Your task to perform on an android device: check android version Image 0: 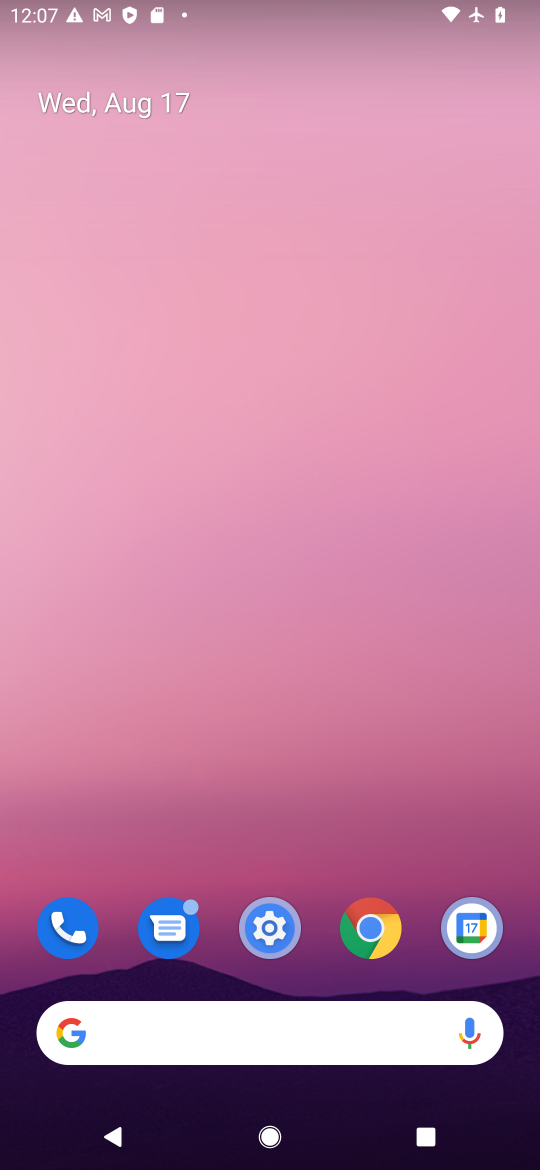
Step 0: click (255, 919)
Your task to perform on an android device: check android version Image 1: 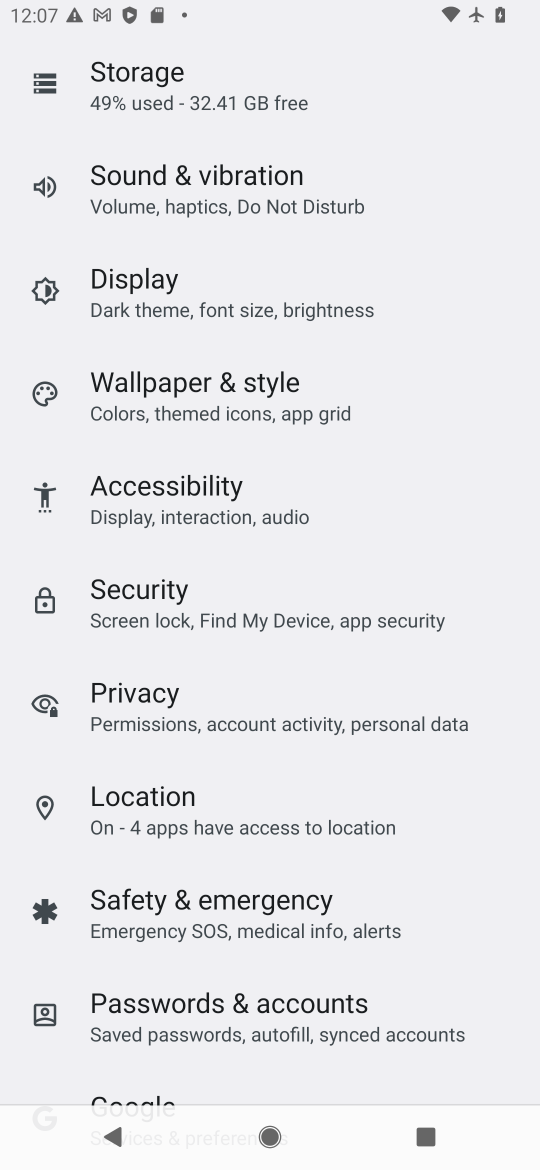
Step 1: drag from (322, 957) to (322, 363)
Your task to perform on an android device: check android version Image 2: 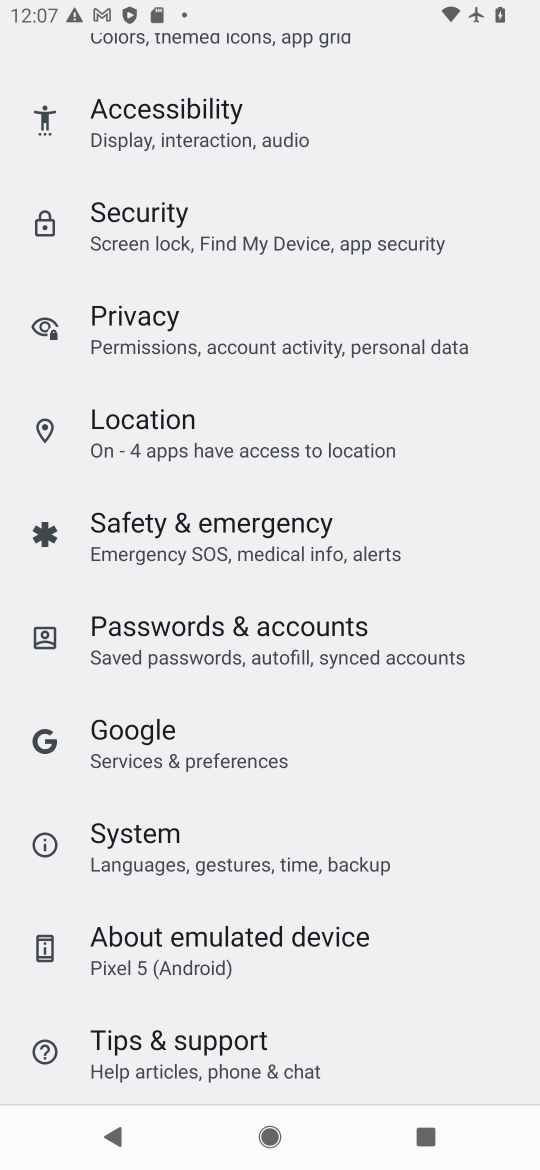
Step 2: drag from (292, 929) to (292, 475)
Your task to perform on an android device: check android version Image 3: 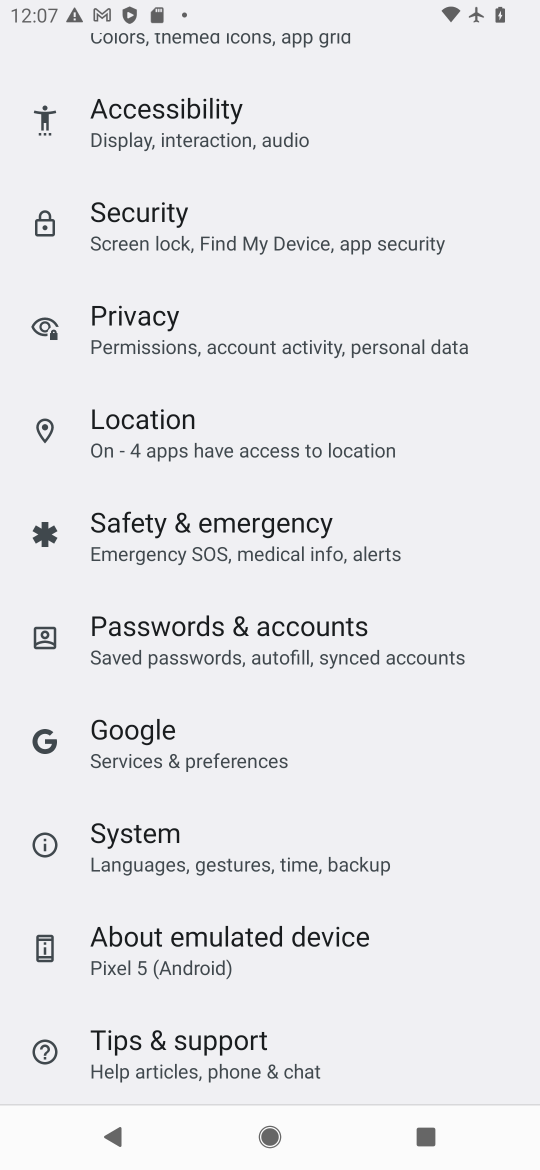
Step 3: drag from (247, 954) to (247, 434)
Your task to perform on an android device: check android version Image 4: 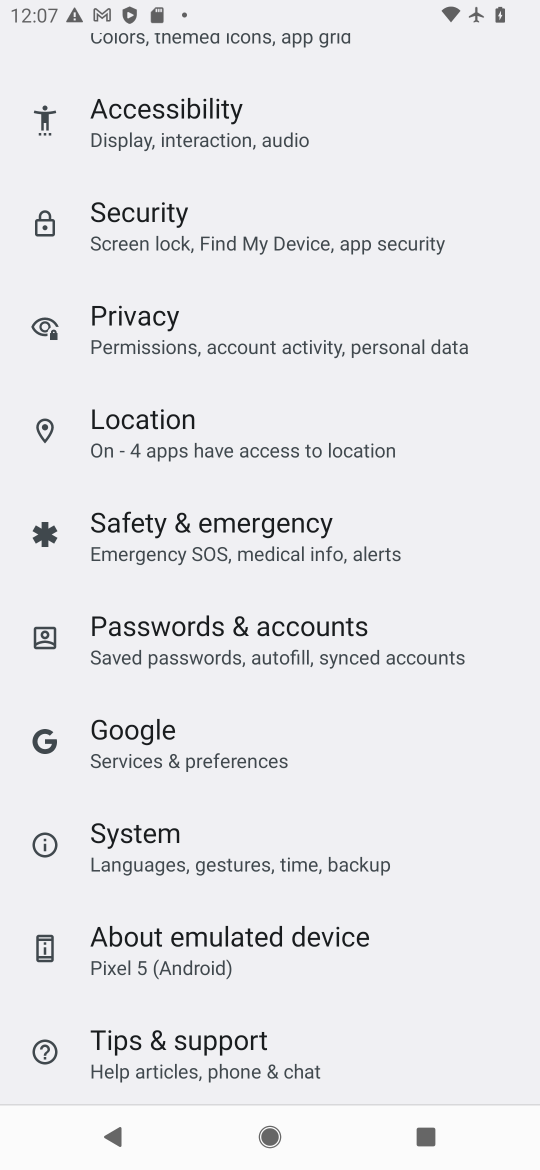
Step 4: click (194, 953)
Your task to perform on an android device: check android version Image 5: 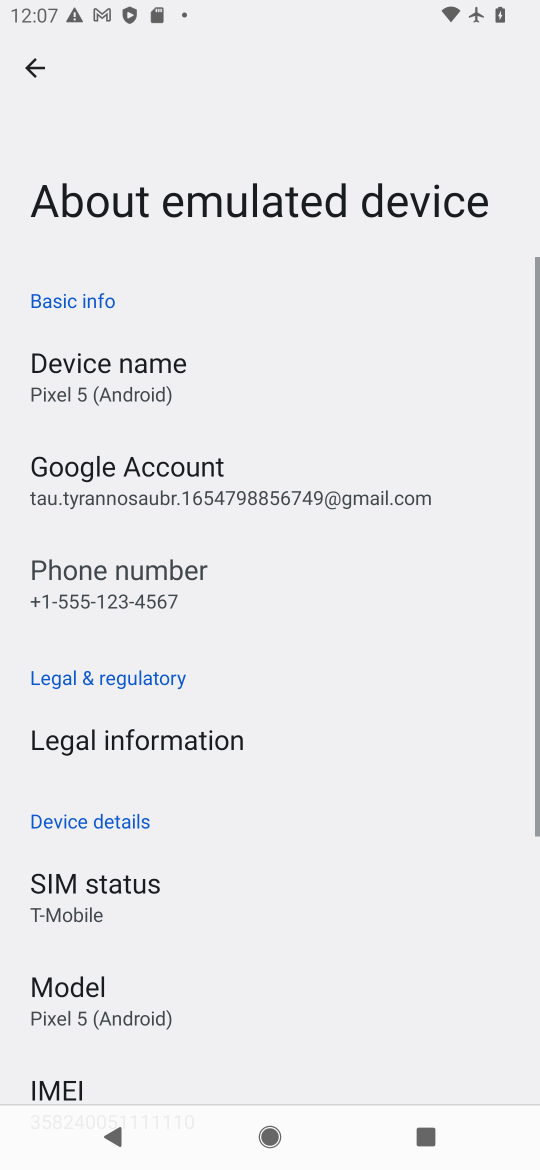
Step 5: drag from (178, 998) to (203, 570)
Your task to perform on an android device: check android version Image 6: 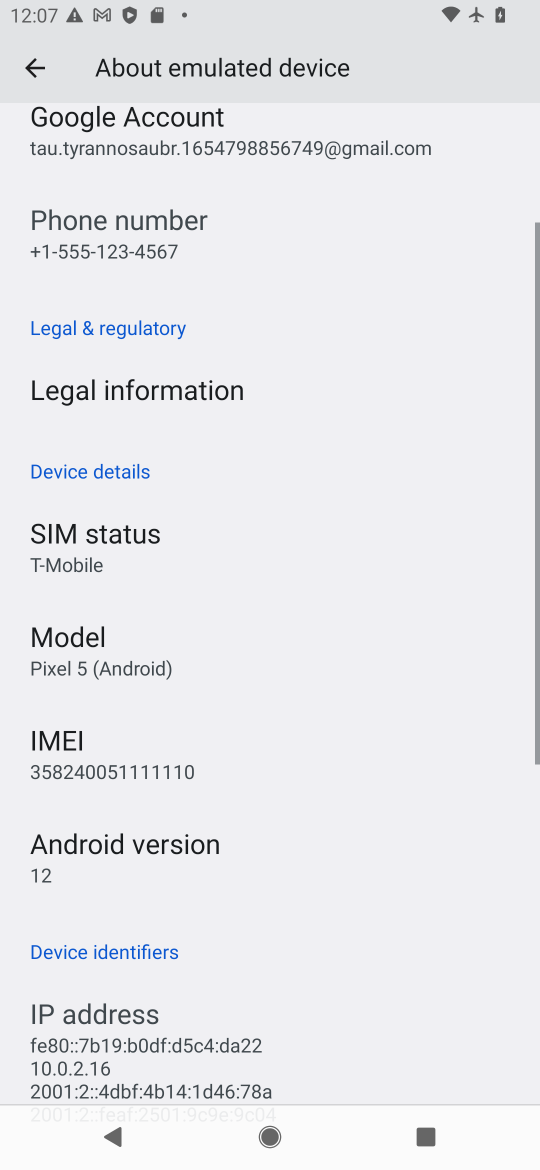
Step 6: click (152, 852)
Your task to perform on an android device: check android version Image 7: 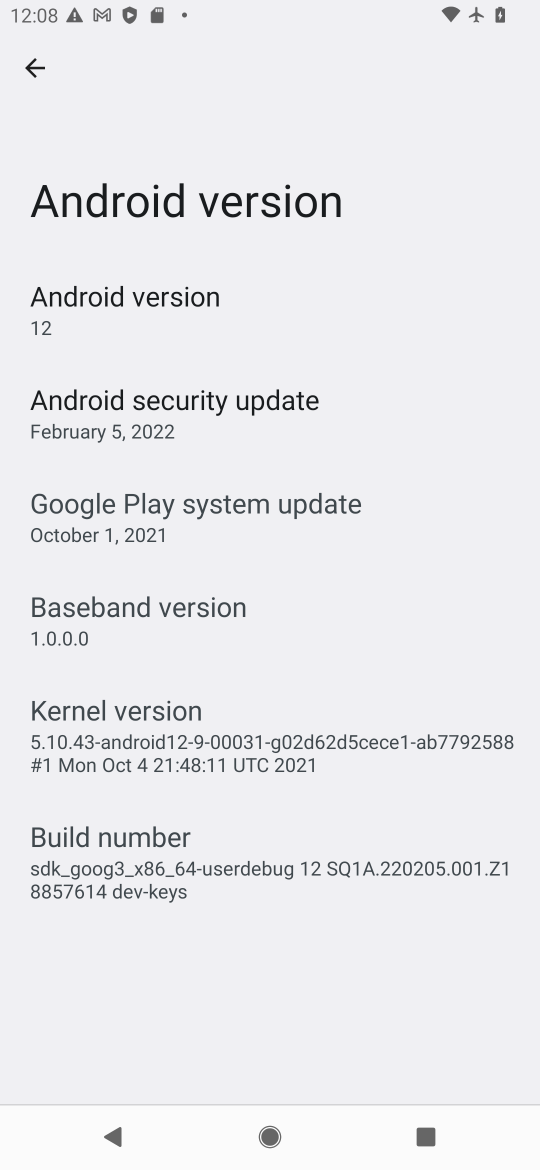
Step 7: task complete